Your task to perform on an android device: empty trash in google photos Image 0: 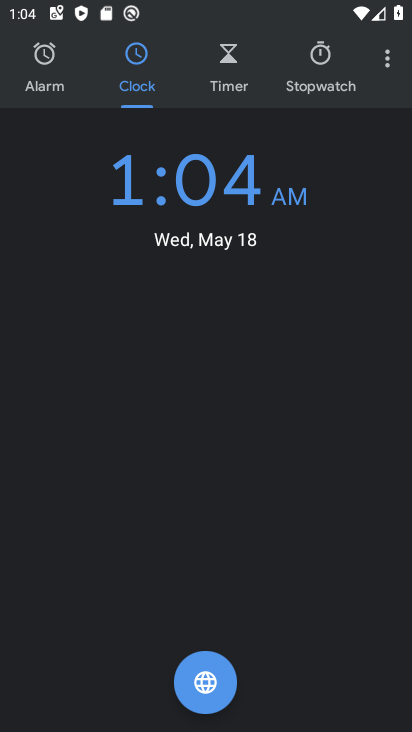
Step 0: press back button
Your task to perform on an android device: empty trash in google photos Image 1: 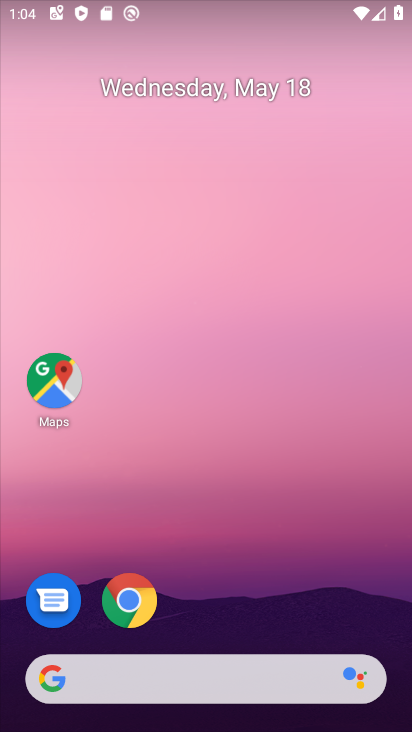
Step 1: drag from (226, 538) to (202, 101)
Your task to perform on an android device: empty trash in google photos Image 2: 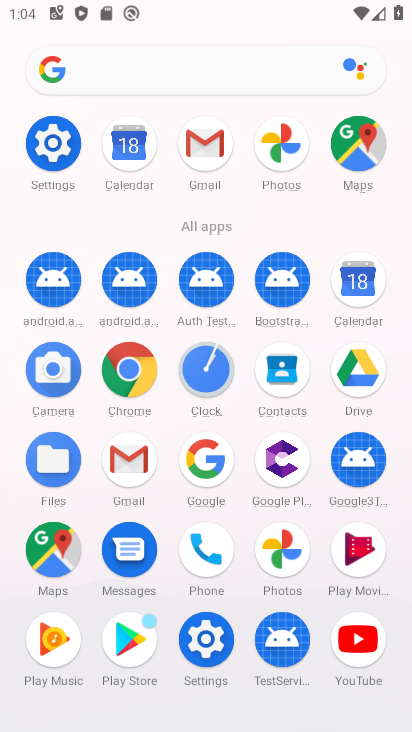
Step 2: click (282, 549)
Your task to perform on an android device: empty trash in google photos Image 3: 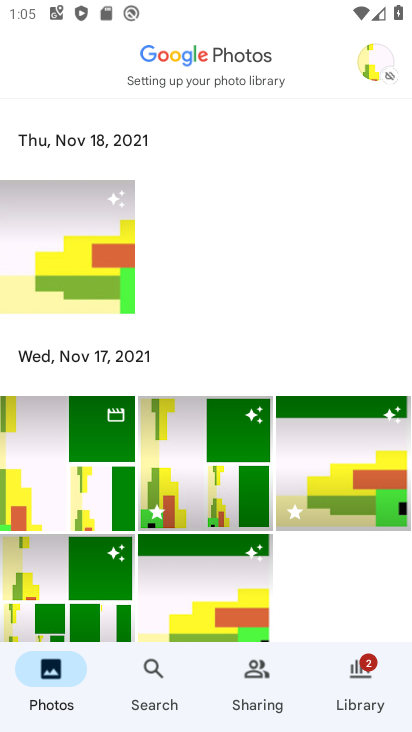
Step 3: click (363, 664)
Your task to perform on an android device: empty trash in google photos Image 4: 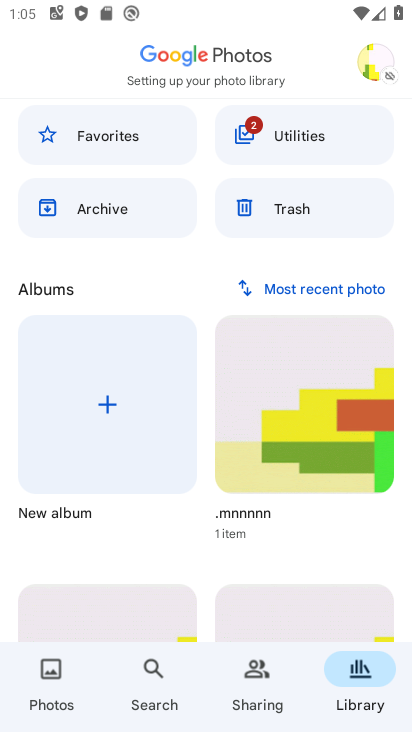
Step 4: click (279, 218)
Your task to perform on an android device: empty trash in google photos Image 5: 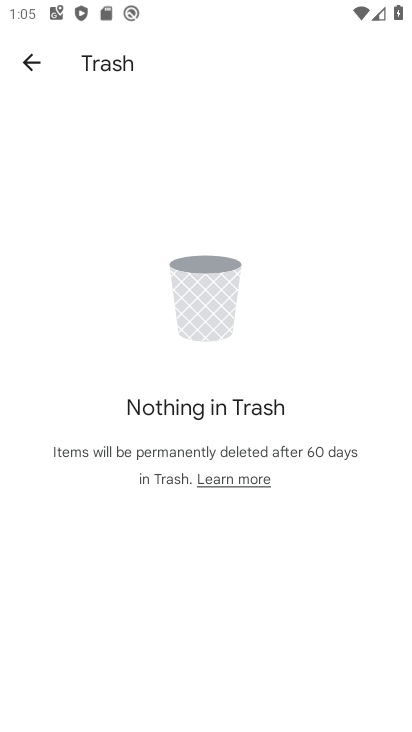
Step 5: task complete